Your task to perform on an android device: open the mobile data screen to see how much data has been used Image 0: 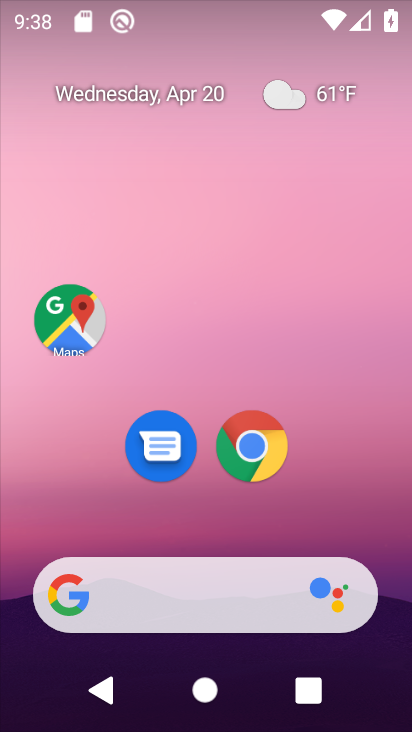
Step 0: drag from (366, 422) to (369, 118)
Your task to perform on an android device: open the mobile data screen to see how much data has been used Image 1: 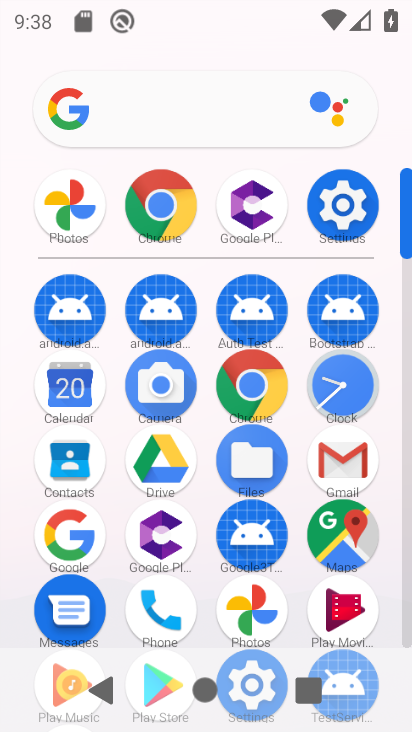
Step 1: click (357, 219)
Your task to perform on an android device: open the mobile data screen to see how much data has been used Image 2: 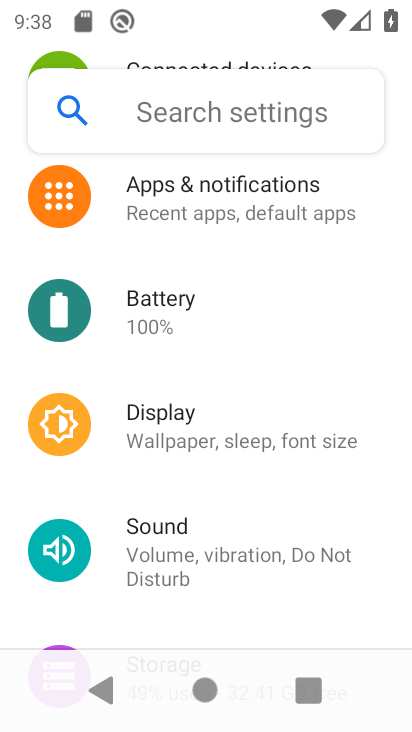
Step 2: drag from (335, 379) to (286, 598)
Your task to perform on an android device: open the mobile data screen to see how much data has been used Image 3: 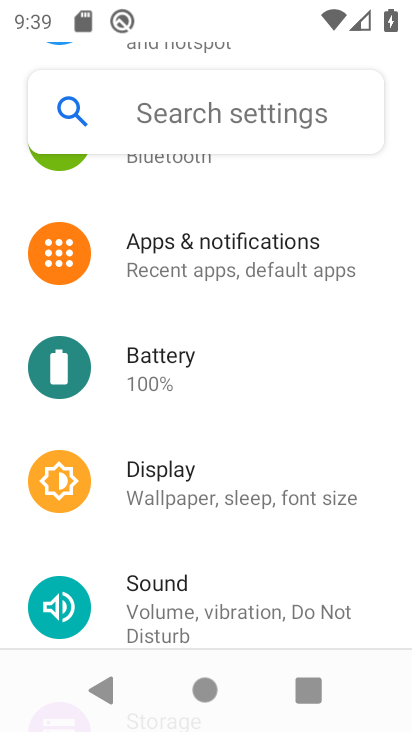
Step 3: drag from (351, 213) to (311, 537)
Your task to perform on an android device: open the mobile data screen to see how much data has been used Image 4: 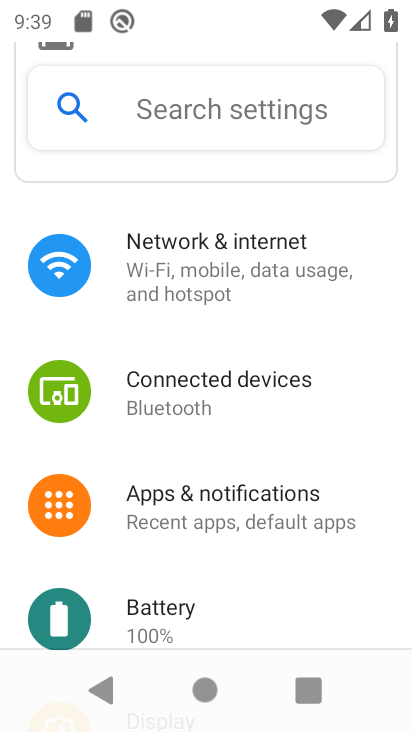
Step 4: click (253, 262)
Your task to perform on an android device: open the mobile data screen to see how much data has been used Image 5: 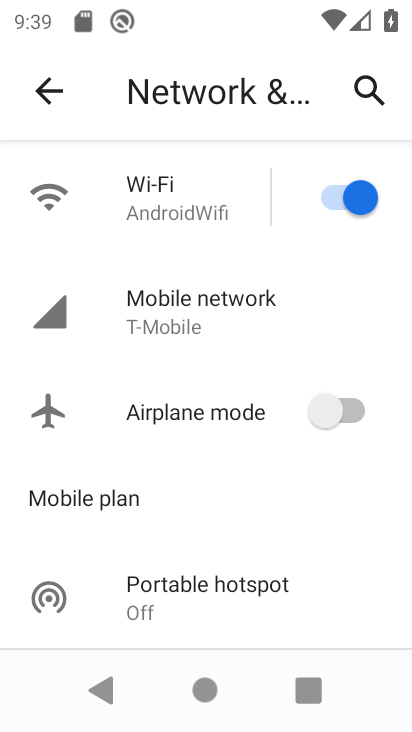
Step 5: click (220, 314)
Your task to perform on an android device: open the mobile data screen to see how much data has been used Image 6: 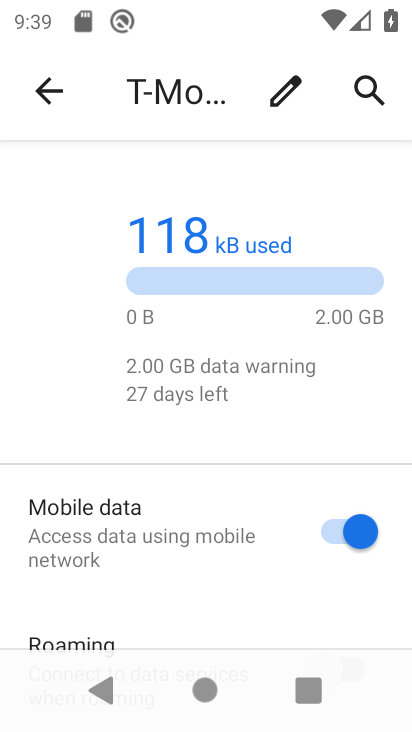
Step 6: drag from (243, 607) to (262, 251)
Your task to perform on an android device: open the mobile data screen to see how much data has been used Image 7: 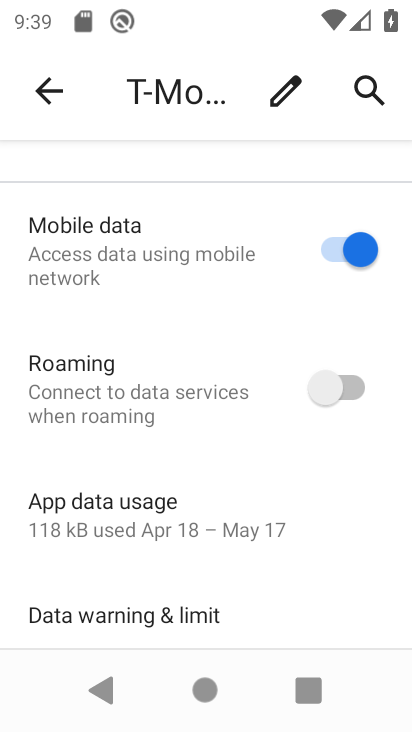
Step 7: click (147, 507)
Your task to perform on an android device: open the mobile data screen to see how much data has been used Image 8: 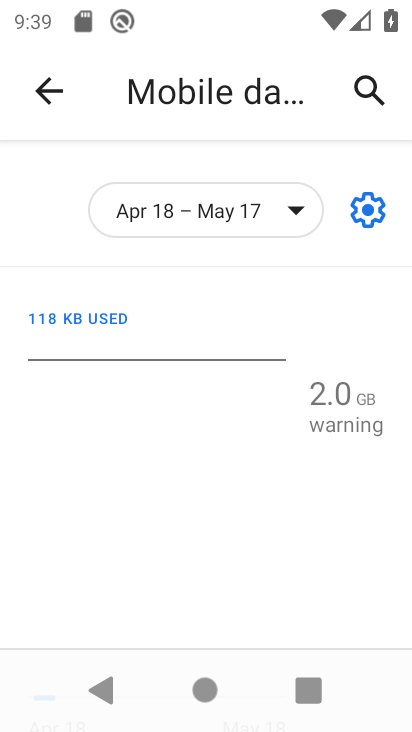
Step 8: task complete